Your task to perform on an android device: Clear the shopping cart on amazon.com. Search for "acer predator" on amazon.com, select the first entry, add it to the cart, then select checkout. Image 0: 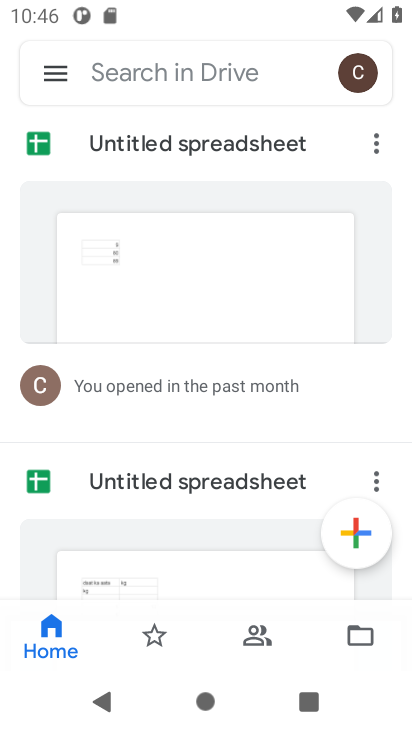
Step 0: press home button
Your task to perform on an android device: Clear the shopping cart on amazon.com. Search for "acer predator" on amazon.com, select the first entry, add it to the cart, then select checkout. Image 1: 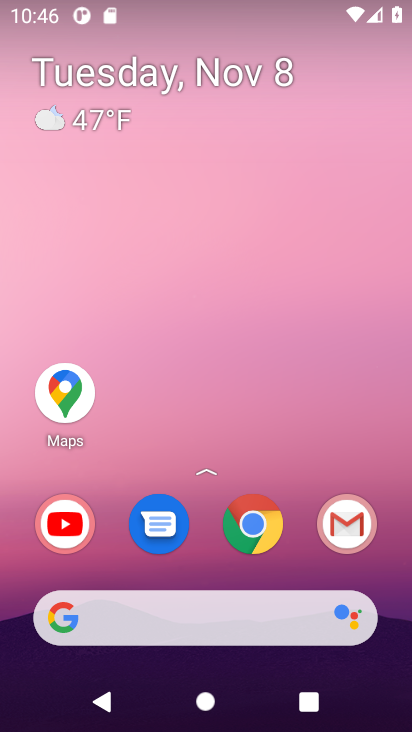
Step 1: click (258, 525)
Your task to perform on an android device: Clear the shopping cart on amazon.com. Search for "acer predator" on amazon.com, select the first entry, add it to the cart, then select checkout. Image 2: 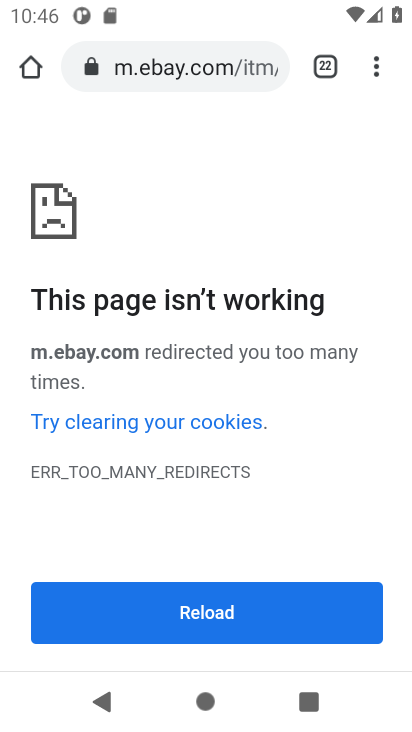
Step 2: click (164, 70)
Your task to perform on an android device: Clear the shopping cart on amazon.com. Search for "acer predator" on amazon.com, select the first entry, add it to the cart, then select checkout. Image 3: 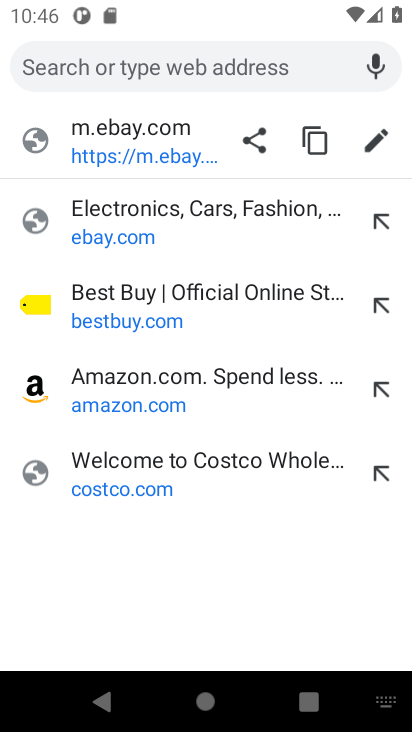
Step 3: click (101, 391)
Your task to perform on an android device: Clear the shopping cart on amazon.com. Search for "acer predator" on amazon.com, select the first entry, add it to the cart, then select checkout. Image 4: 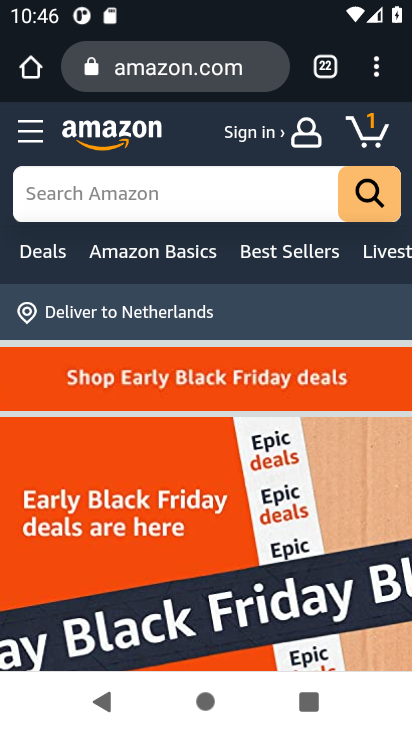
Step 4: click (364, 125)
Your task to perform on an android device: Clear the shopping cart on amazon.com. Search for "acer predator" on amazon.com, select the first entry, add it to the cart, then select checkout. Image 5: 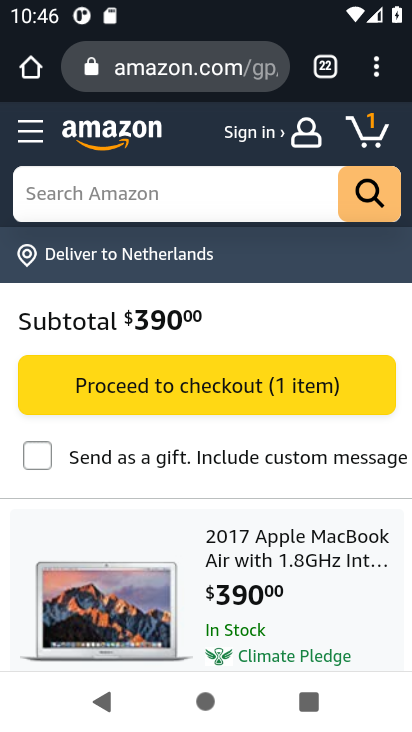
Step 5: drag from (219, 402) to (201, 140)
Your task to perform on an android device: Clear the shopping cart on amazon.com. Search for "acer predator" on amazon.com, select the first entry, add it to the cart, then select checkout. Image 6: 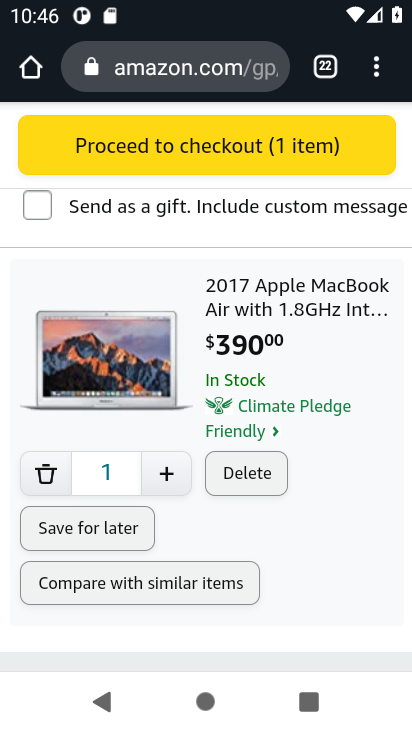
Step 6: click (251, 469)
Your task to perform on an android device: Clear the shopping cart on amazon.com. Search for "acer predator" on amazon.com, select the first entry, add it to the cart, then select checkout. Image 7: 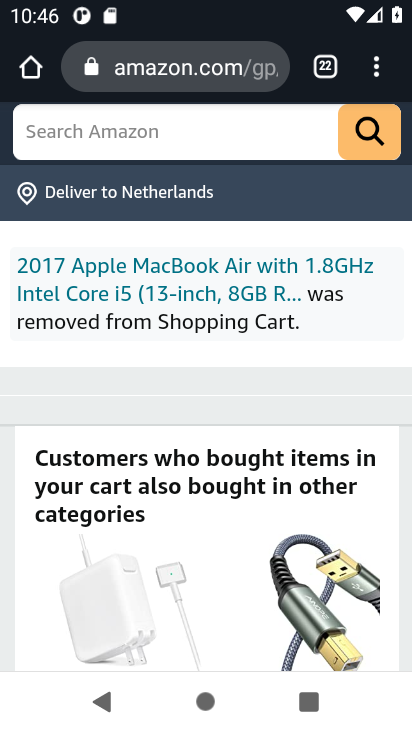
Step 7: click (145, 138)
Your task to perform on an android device: Clear the shopping cart on amazon.com. Search for "acer predator" on amazon.com, select the first entry, add it to the cart, then select checkout. Image 8: 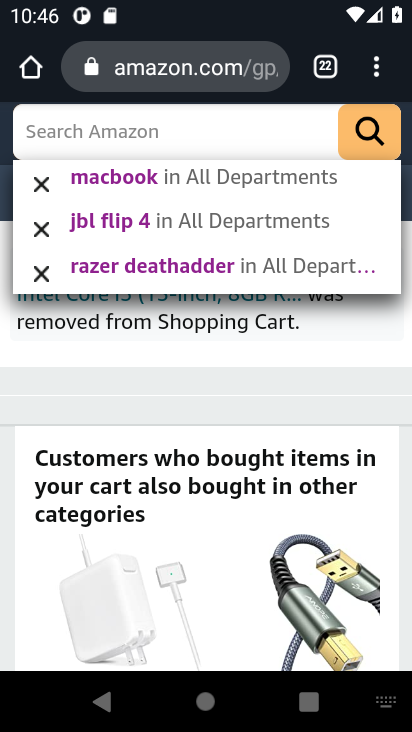
Step 8: type "acer predator"
Your task to perform on an android device: Clear the shopping cart on amazon.com. Search for "acer predator" on amazon.com, select the first entry, add it to the cart, then select checkout. Image 9: 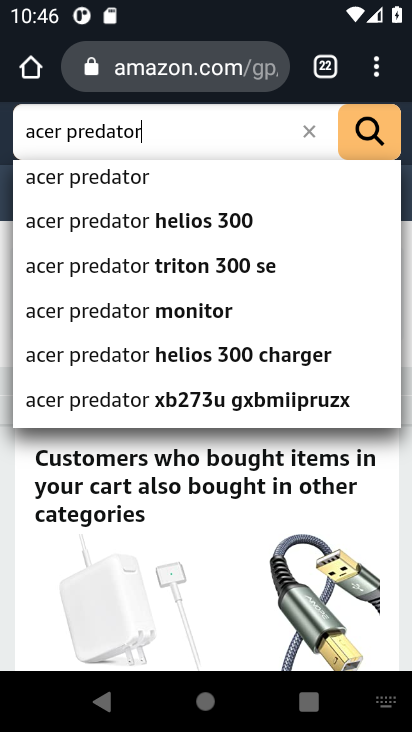
Step 9: click (108, 182)
Your task to perform on an android device: Clear the shopping cart on amazon.com. Search for "acer predator" on amazon.com, select the first entry, add it to the cart, then select checkout. Image 10: 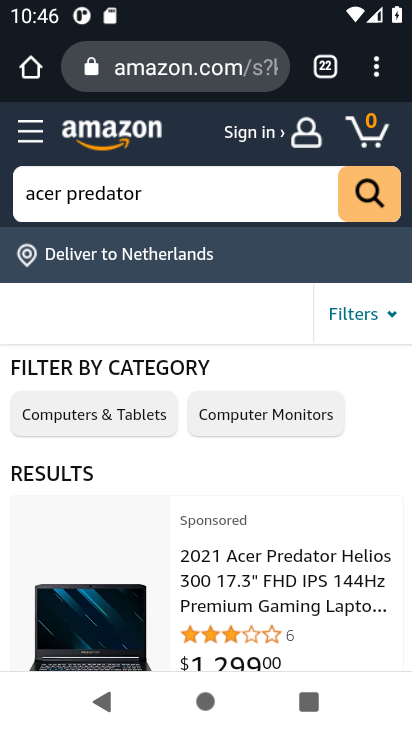
Step 10: drag from (165, 570) to (155, 334)
Your task to perform on an android device: Clear the shopping cart on amazon.com. Search for "acer predator" on amazon.com, select the first entry, add it to the cart, then select checkout. Image 11: 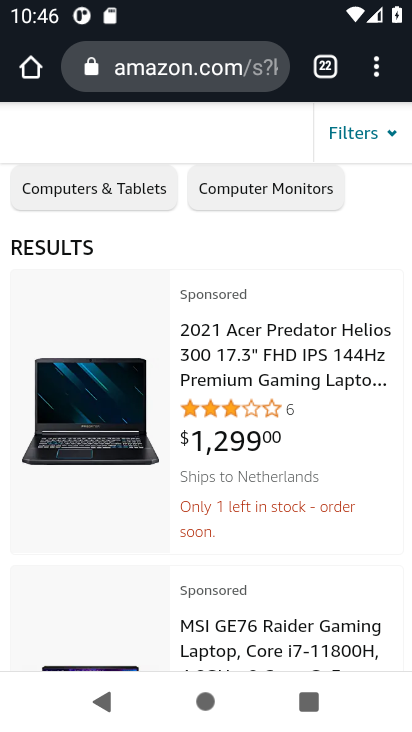
Step 11: click (117, 439)
Your task to perform on an android device: Clear the shopping cart on amazon.com. Search for "acer predator" on amazon.com, select the first entry, add it to the cart, then select checkout. Image 12: 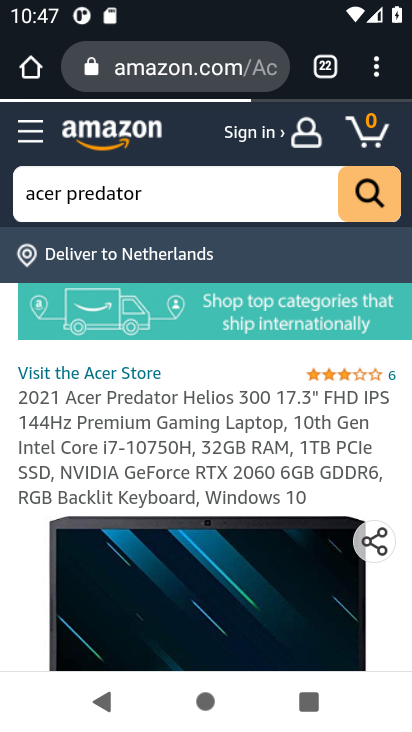
Step 12: drag from (171, 590) to (177, 261)
Your task to perform on an android device: Clear the shopping cart on amazon.com. Search for "acer predator" on amazon.com, select the first entry, add it to the cart, then select checkout. Image 13: 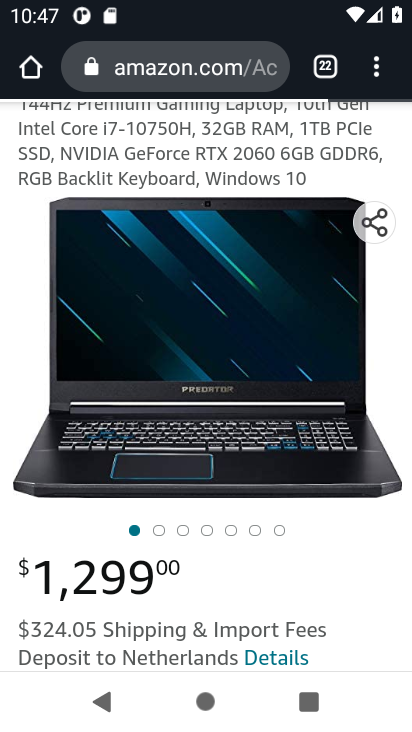
Step 13: drag from (169, 476) to (173, 292)
Your task to perform on an android device: Clear the shopping cart on amazon.com. Search for "acer predator" on amazon.com, select the first entry, add it to the cart, then select checkout. Image 14: 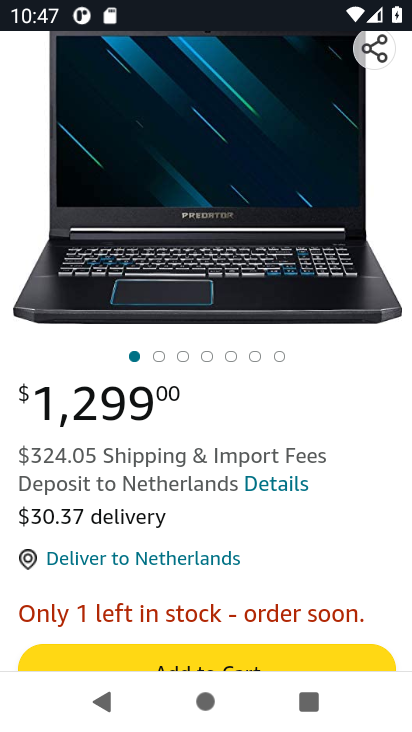
Step 14: drag from (229, 516) to (212, 276)
Your task to perform on an android device: Clear the shopping cart on amazon.com. Search for "acer predator" on amazon.com, select the first entry, add it to the cart, then select checkout. Image 15: 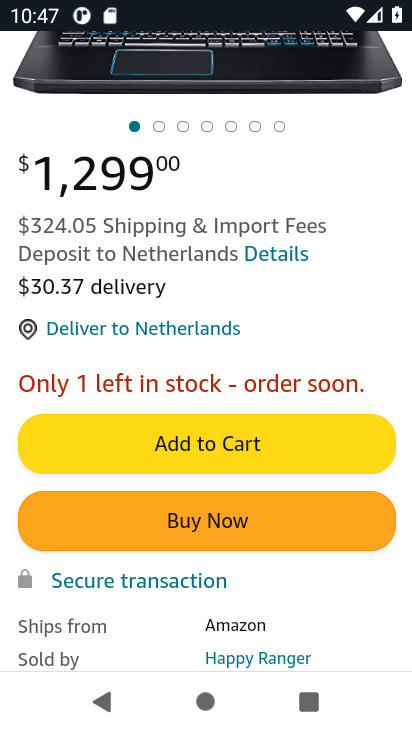
Step 15: click (201, 445)
Your task to perform on an android device: Clear the shopping cart on amazon.com. Search for "acer predator" on amazon.com, select the first entry, add it to the cart, then select checkout. Image 16: 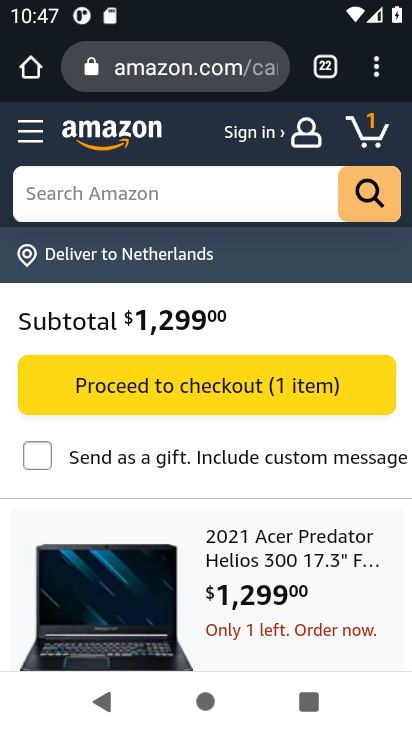
Step 16: click (194, 385)
Your task to perform on an android device: Clear the shopping cart on amazon.com. Search for "acer predator" on amazon.com, select the first entry, add it to the cart, then select checkout. Image 17: 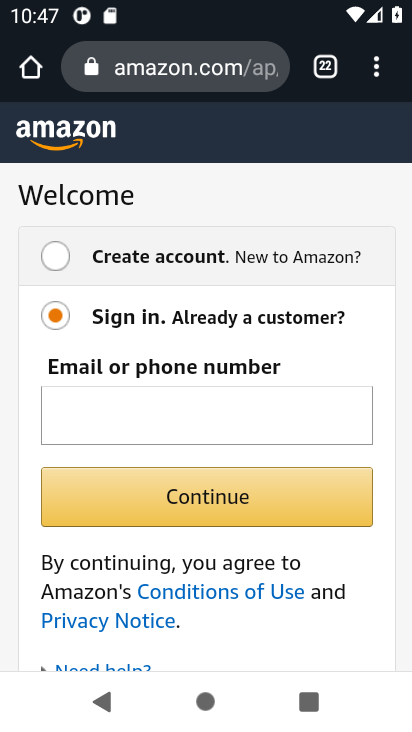
Step 17: task complete